Your task to perform on an android device: check storage Image 0: 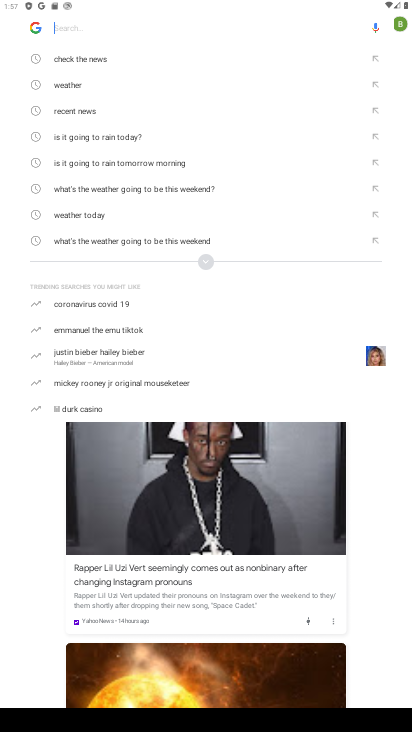
Step 0: press home button
Your task to perform on an android device: check storage Image 1: 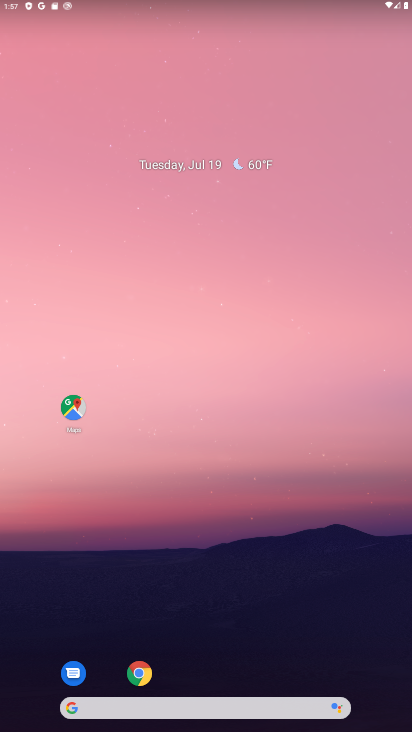
Step 1: drag from (289, 650) to (207, 76)
Your task to perform on an android device: check storage Image 2: 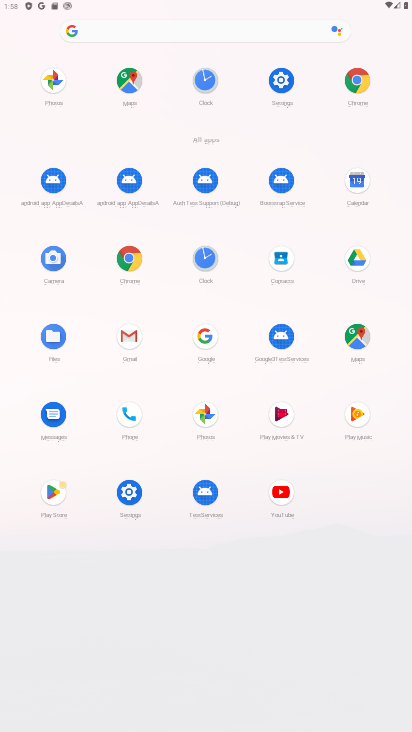
Step 2: click (283, 75)
Your task to perform on an android device: check storage Image 3: 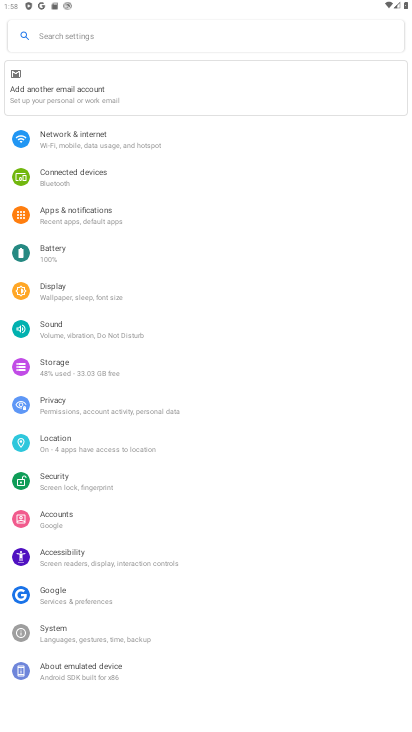
Step 3: click (153, 377)
Your task to perform on an android device: check storage Image 4: 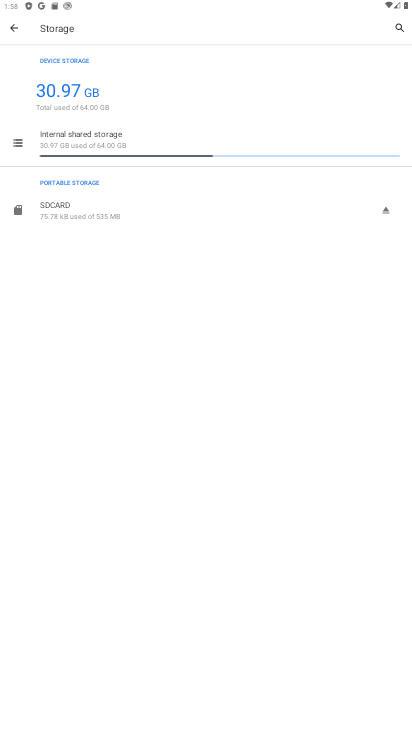
Step 4: task complete